Your task to perform on an android device: Do I have any events tomorrow? Image 0: 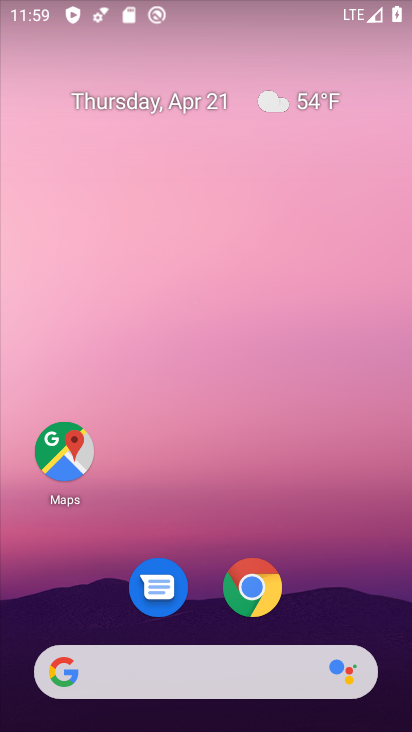
Step 0: drag from (59, 576) to (171, 88)
Your task to perform on an android device: Do I have any events tomorrow? Image 1: 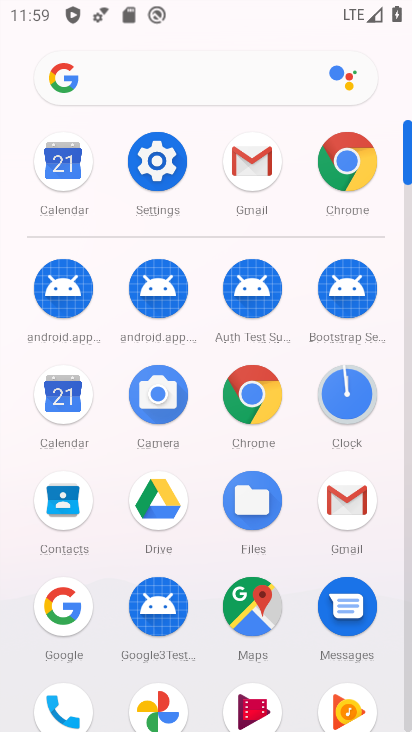
Step 1: click (59, 405)
Your task to perform on an android device: Do I have any events tomorrow? Image 2: 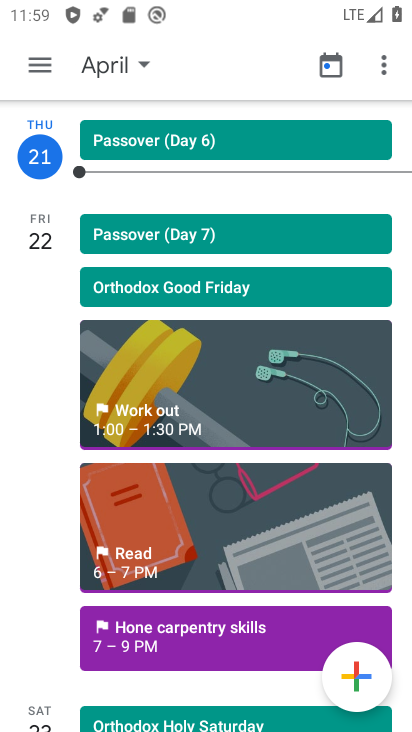
Step 2: drag from (190, 641) to (267, 224)
Your task to perform on an android device: Do I have any events tomorrow? Image 3: 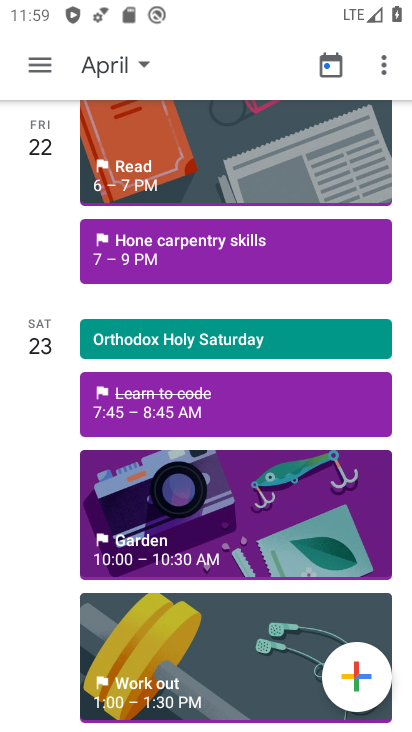
Step 3: click (174, 333)
Your task to perform on an android device: Do I have any events tomorrow? Image 4: 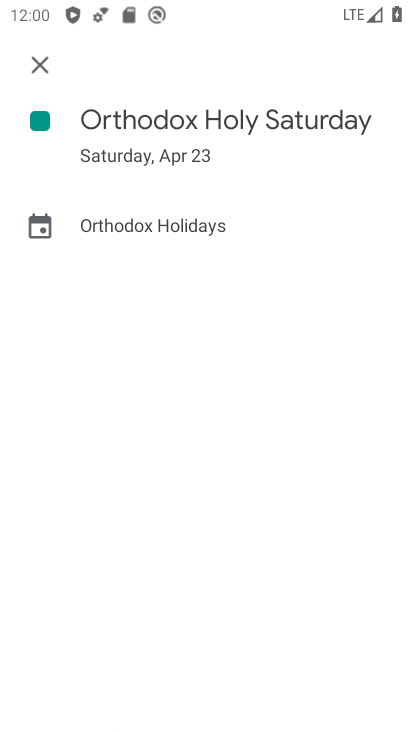
Step 4: task complete